Your task to perform on an android device: toggle data saver in the chrome app Image 0: 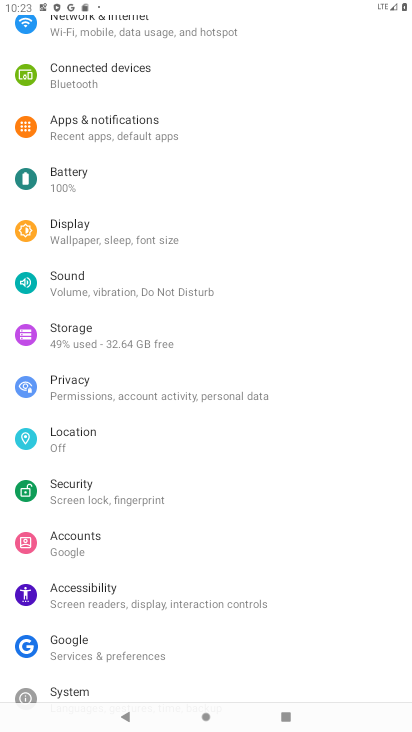
Step 0: press home button
Your task to perform on an android device: toggle data saver in the chrome app Image 1: 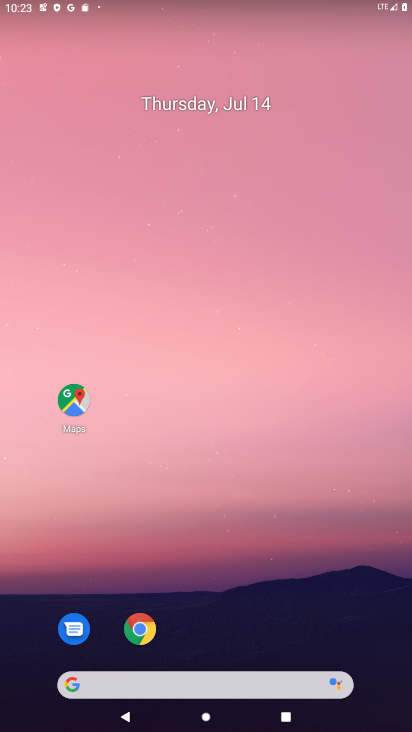
Step 1: click (134, 625)
Your task to perform on an android device: toggle data saver in the chrome app Image 2: 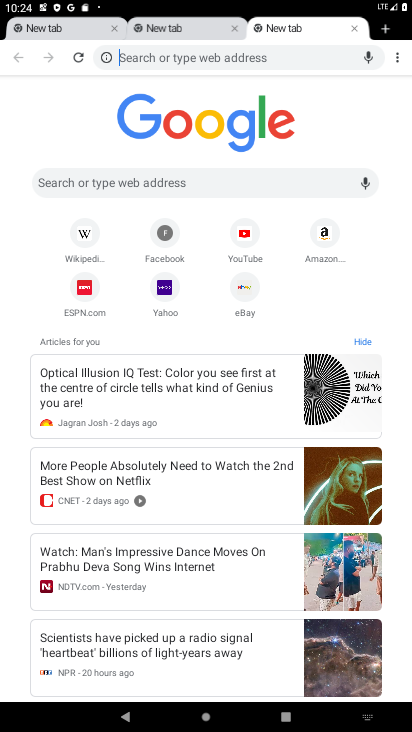
Step 2: click (392, 55)
Your task to perform on an android device: toggle data saver in the chrome app Image 3: 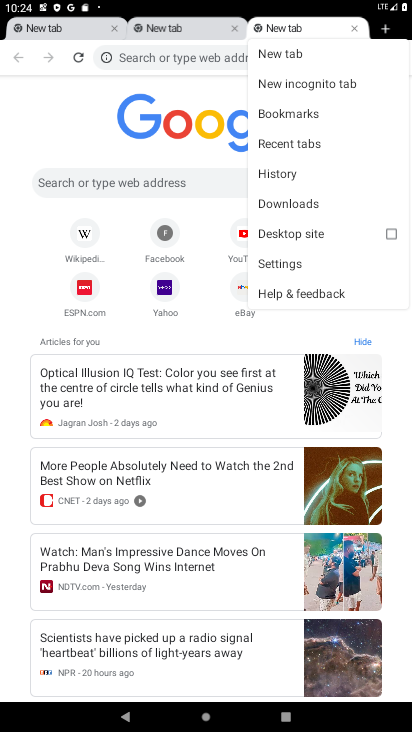
Step 3: click (278, 258)
Your task to perform on an android device: toggle data saver in the chrome app Image 4: 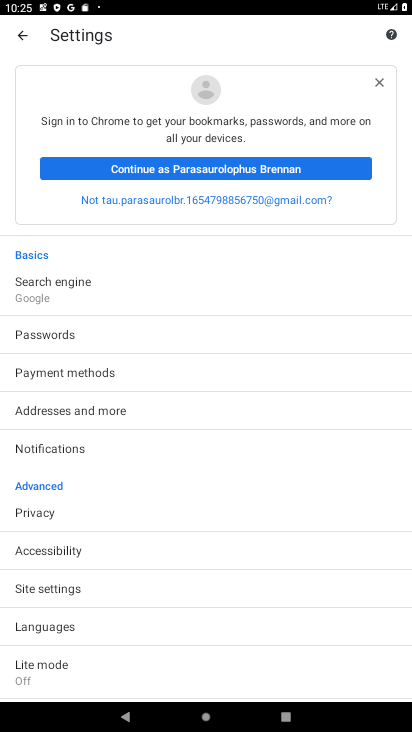
Step 4: click (79, 661)
Your task to perform on an android device: toggle data saver in the chrome app Image 5: 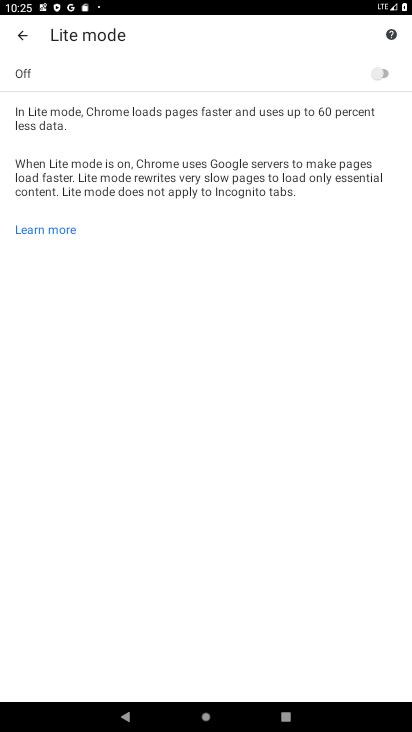
Step 5: click (376, 78)
Your task to perform on an android device: toggle data saver in the chrome app Image 6: 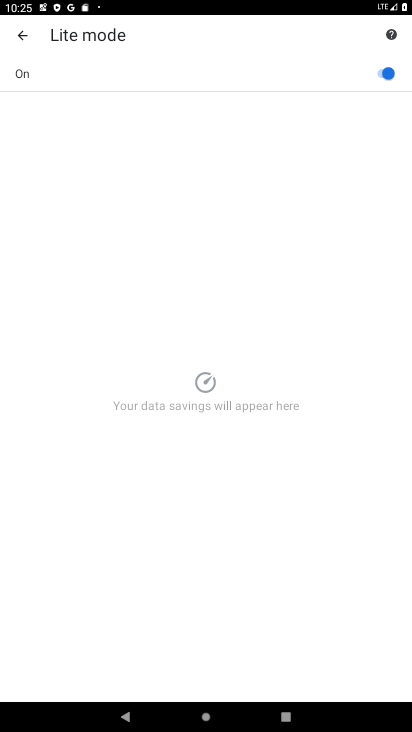
Step 6: task complete